Your task to perform on an android device: turn on bluetooth scan Image 0: 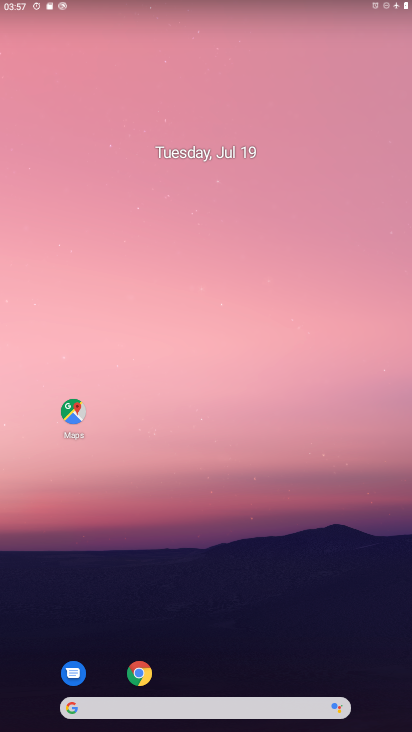
Step 0: drag from (218, 654) to (398, 248)
Your task to perform on an android device: turn on bluetooth scan Image 1: 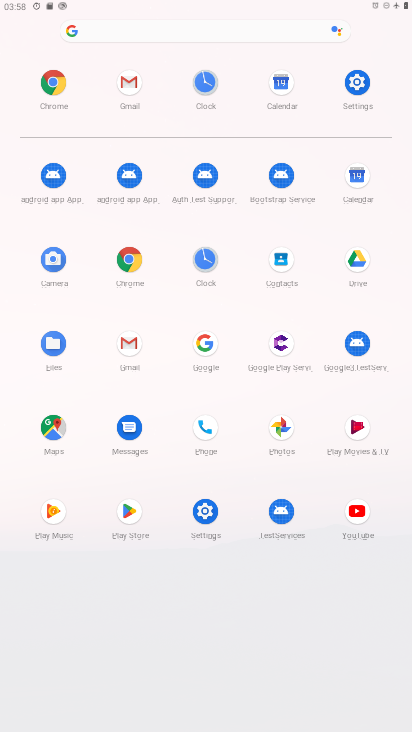
Step 1: click (203, 522)
Your task to perform on an android device: turn on bluetooth scan Image 2: 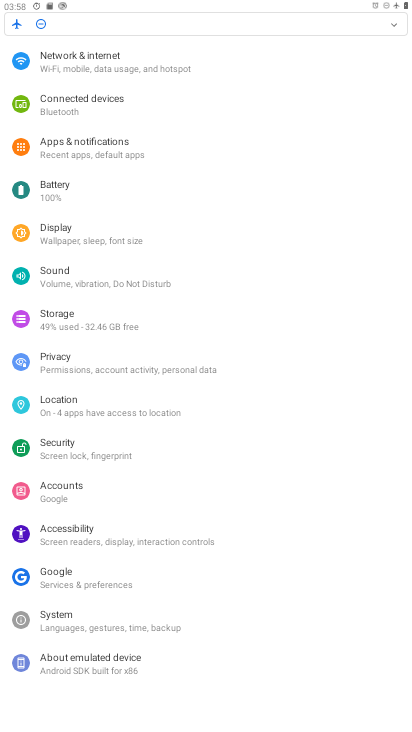
Step 2: click (75, 410)
Your task to perform on an android device: turn on bluetooth scan Image 3: 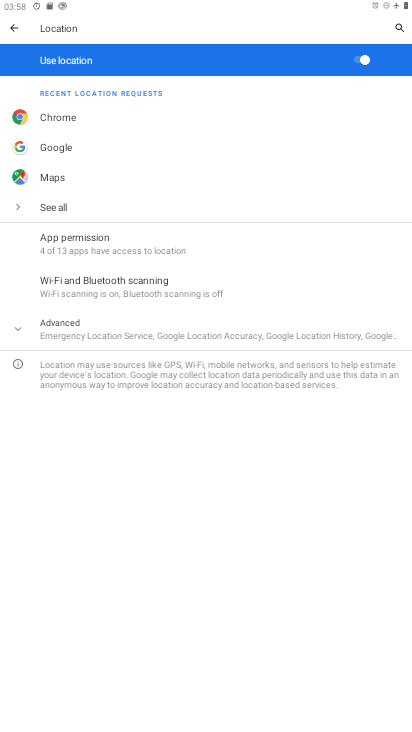
Step 3: click (102, 285)
Your task to perform on an android device: turn on bluetooth scan Image 4: 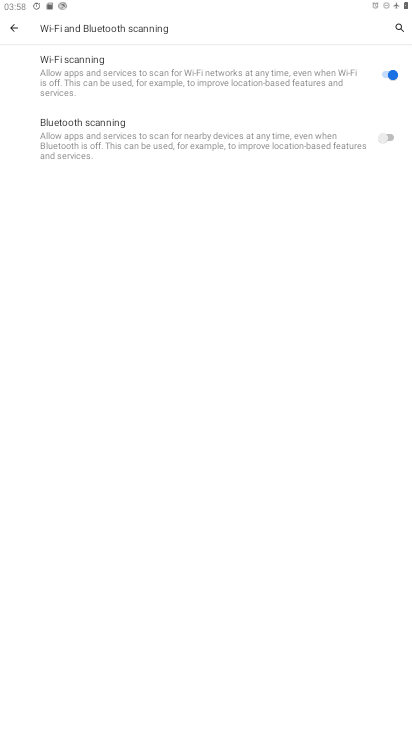
Step 4: click (390, 139)
Your task to perform on an android device: turn on bluetooth scan Image 5: 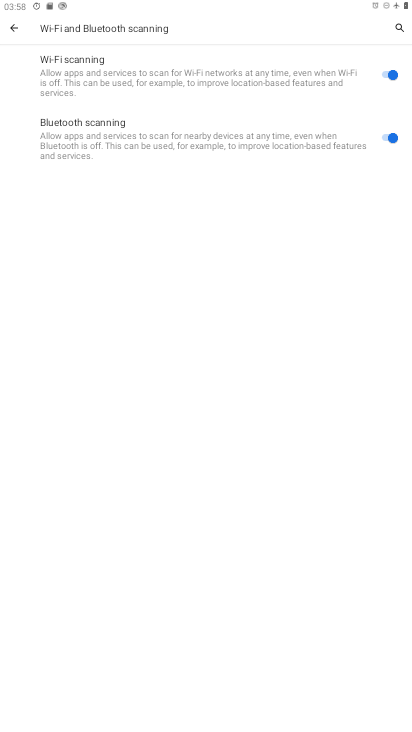
Step 5: task complete